Your task to perform on an android device: open a bookmark in the chrome app Image 0: 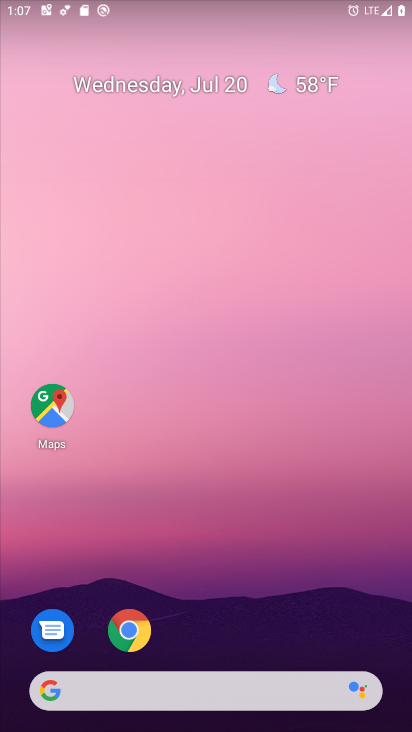
Step 0: click (123, 659)
Your task to perform on an android device: open a bookmark in the chrome app Image 1: 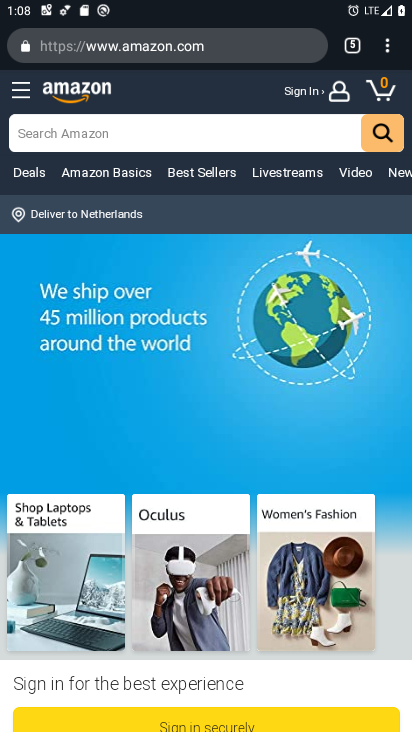
Step 1: click (382, 57)
Your task to perform on an android device: open a bookmark in the chrome app Image 2: 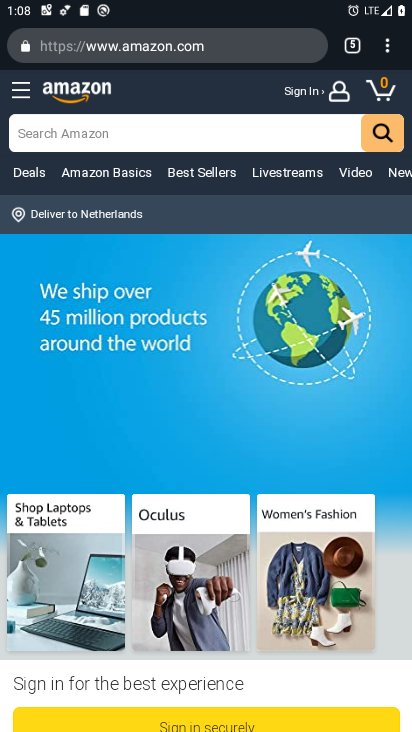
Step 2: click (385, 54)
Your task to perform on an android device: open a bookmark in the chrome app Image 3: 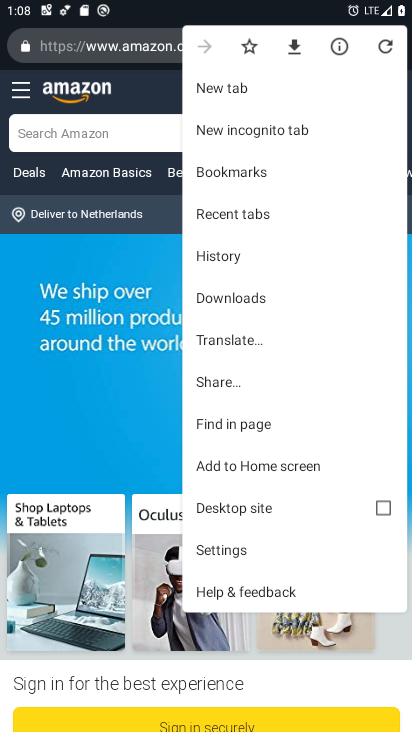
Step 3: click (248, 189)
Your task to perform on an android device: open a bookmark in the chrome app Image 4: 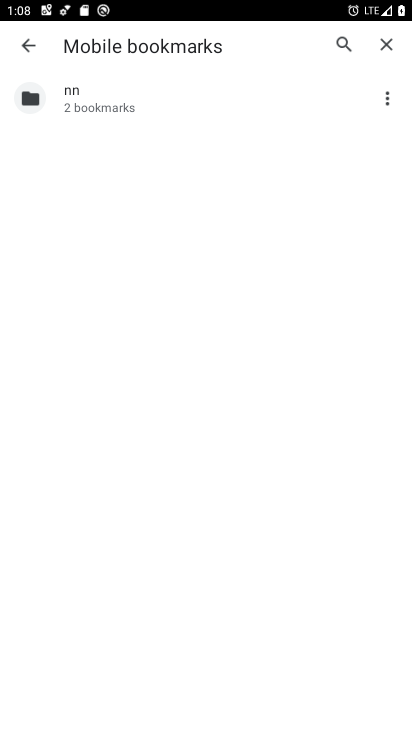
Step 4: click (233, 106)
Your task to perform on an android device: open a bookmark in the chrome app Image 5: 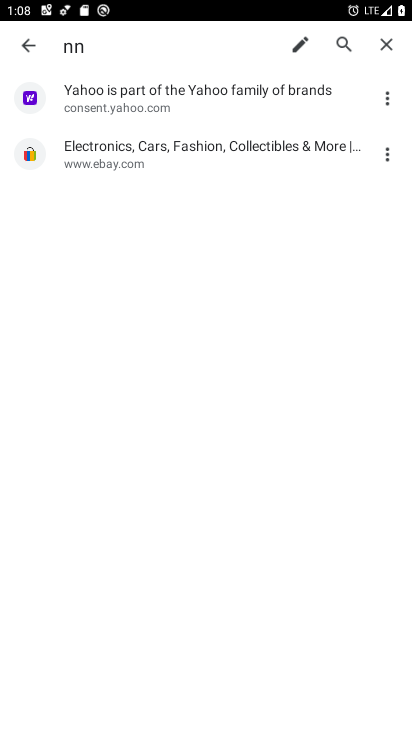
Step 5: click (130, 150)
Your task to perform on an android device: open a bookmark in the chrome app Image 6: 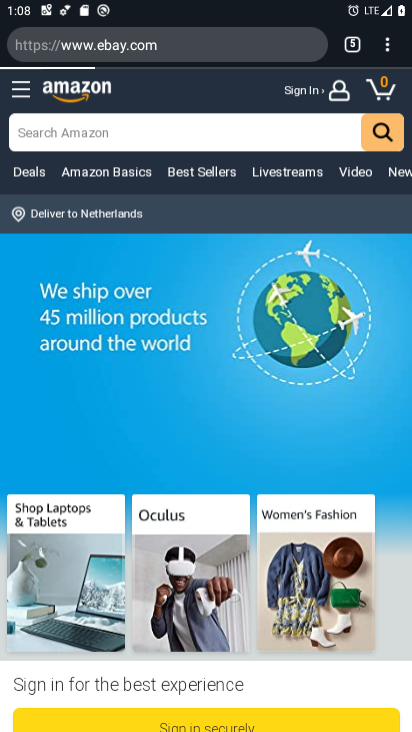
Step 6: task complete